Your task to perform on an android device: Open calendar and show me the second week of next month Image 0: 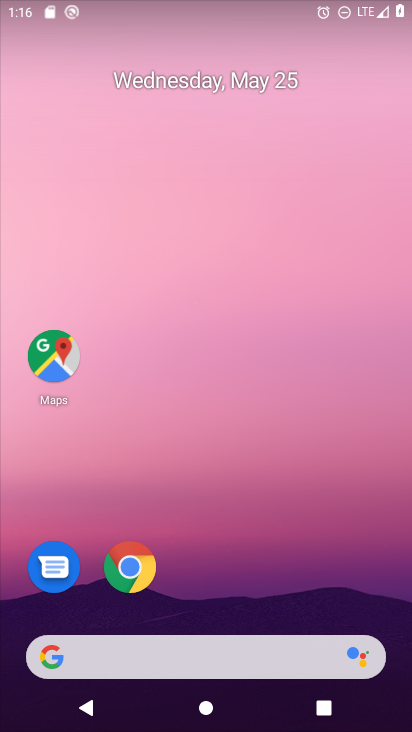
Step 0: drag from (396, 709) to (363, 221)
Your task to perform on an android device: Open calendar and show me the second week of next month Image 1: 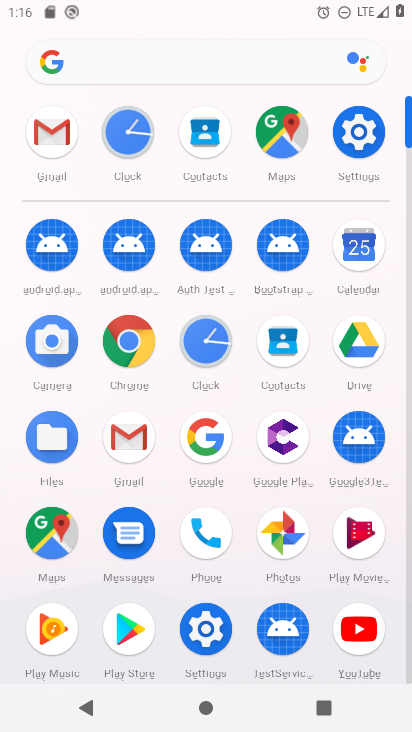
Step 1: click (354, 245)
Your task to perform on an android device: Open calendar and show me the second week of next month Image 2: 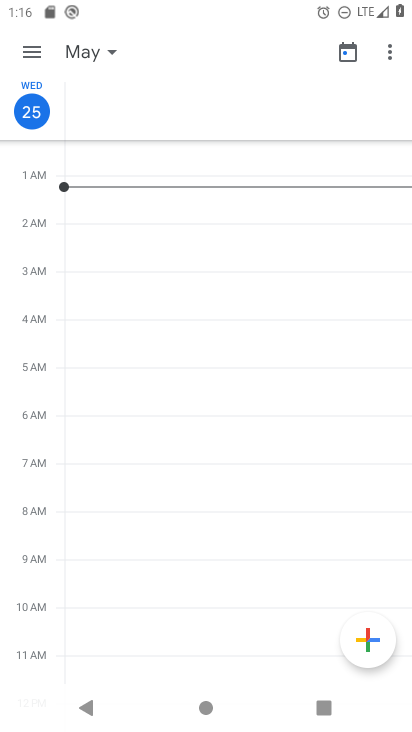
Step 2: click (109, 48)
Your task to perform on an android device: Open calendar and show me the second week of next month Image 3: 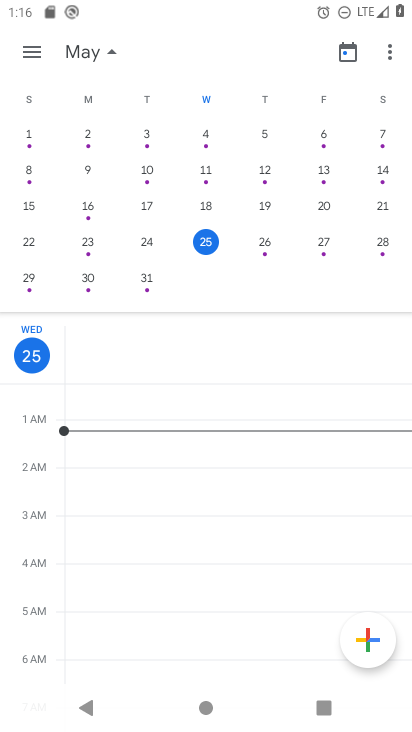
Step 3: drag from (399, 170) to (124, 163)
Your task to perform on an android device: Open calendar and show me the second week of next month Image 4: 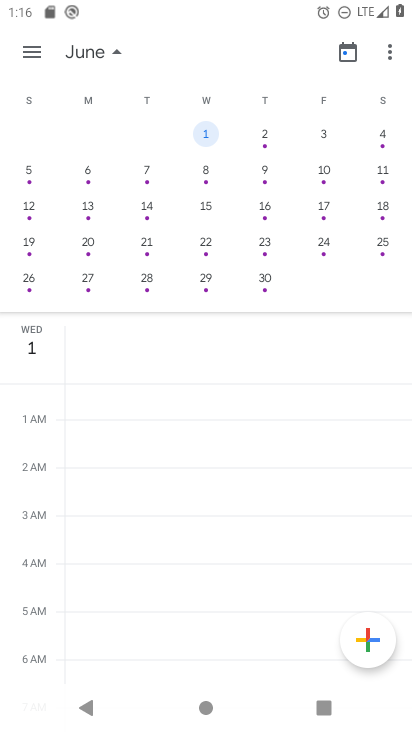
Step 4: click (205, 170)
Your task to perform on an android device: Open calendar and show me the second week of next month Image 5: 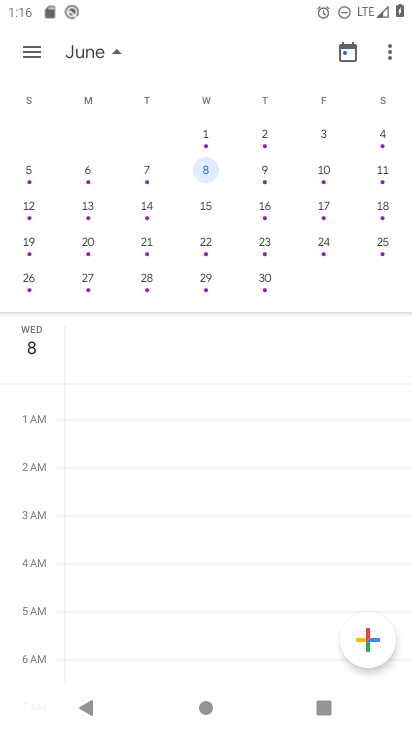
Step 5: task complete